Your task to perform on an android device: Add "logitech g910" to the cart on target Image 0: 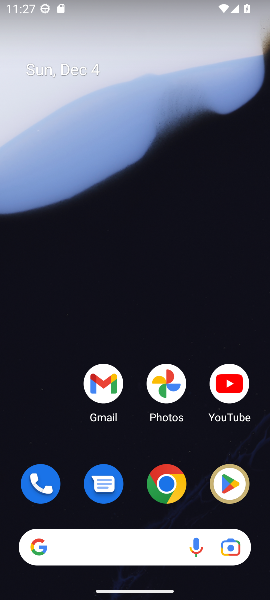
Step 0: click (170, 488)
Your task to perform on an android device: Add "logitech g910" to the cart on target Image 1: 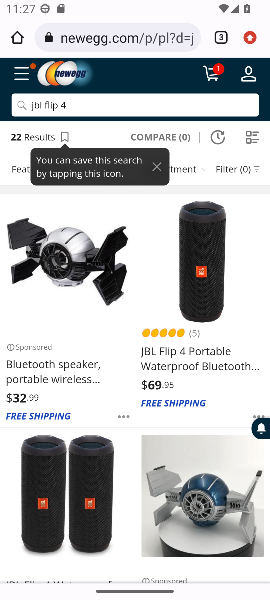
Step 1: click (110, 40)
Your task to perform on an android device: Add "logitech g910" to the cart on target Image 2: 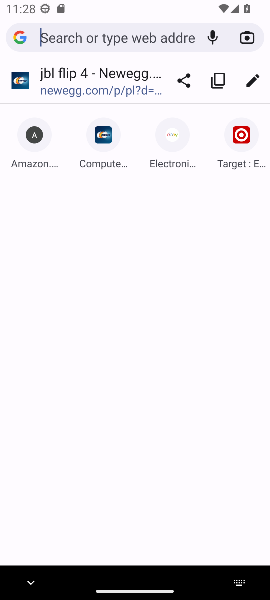
Step 2: click (239, 164)
Your task to perform on an android device: Add "logitech g910" to the cart on target Image 3: 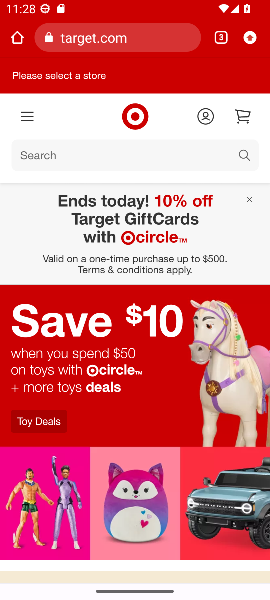
Step 3: click (45, 156)
Your task to perform on an android device: Add "logitech g910" to the cart on target Image 4: 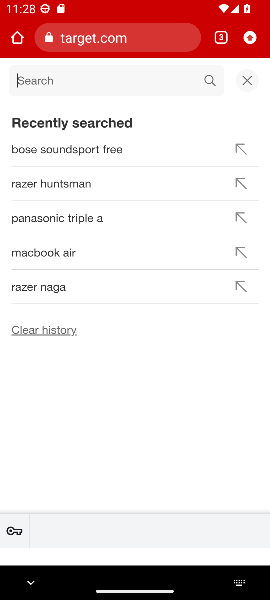
Step 4: type "logitech g910"
Your task to perform on an android device: Add "logitech g910" to the cart on target Image 5: 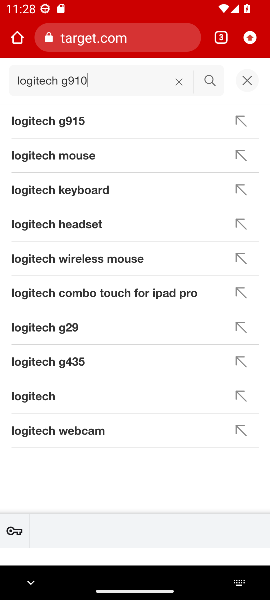
Step 5: click (208, 80)
Your task to perform on an android device: Add "logitech g910" to the cart on target Image 6: 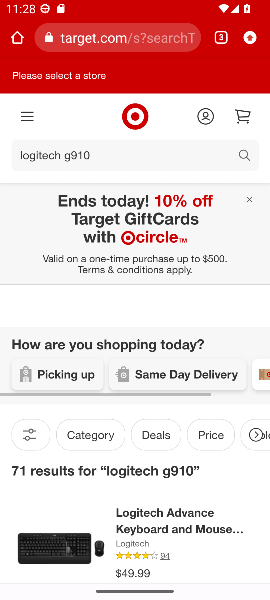
Step 6: task complete